Your task to perform on an android device: open app "Truecaller" (install if not already installed) Image 0: 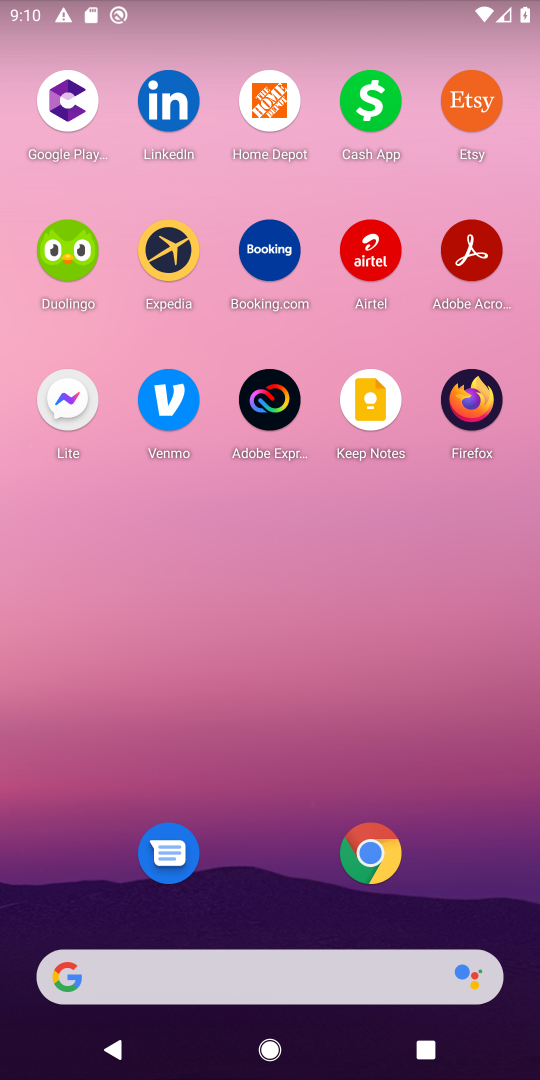
Step 0: drag from (272, 794) to (281, 257)
Your task to perform on an android device: open app "Truecaller" (install if not already installed) Image 1: 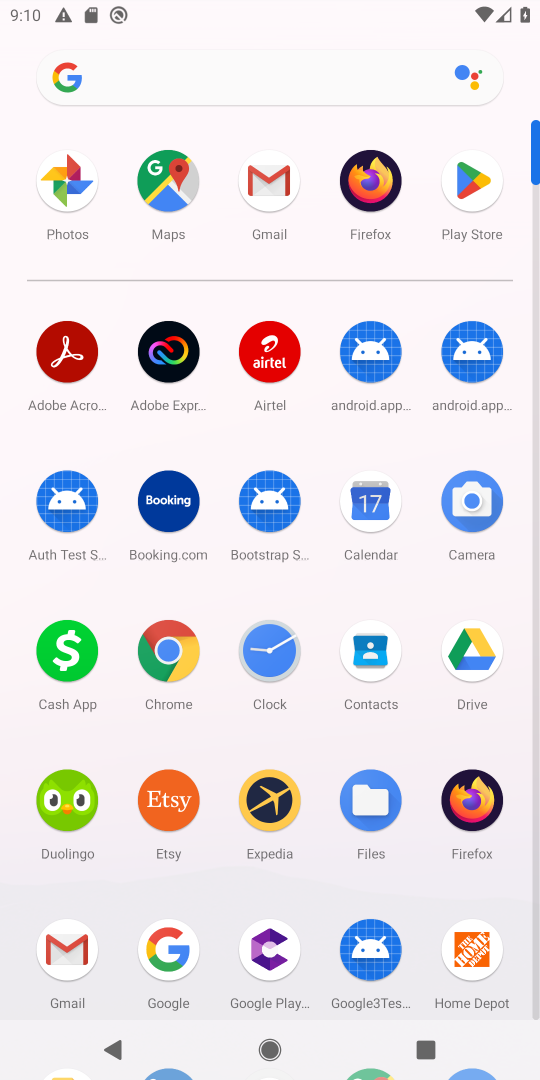
Step 1: click (447, 186)
Your task to perform on an android device: open app "Truecaller" (install if not already installed) Image 2: 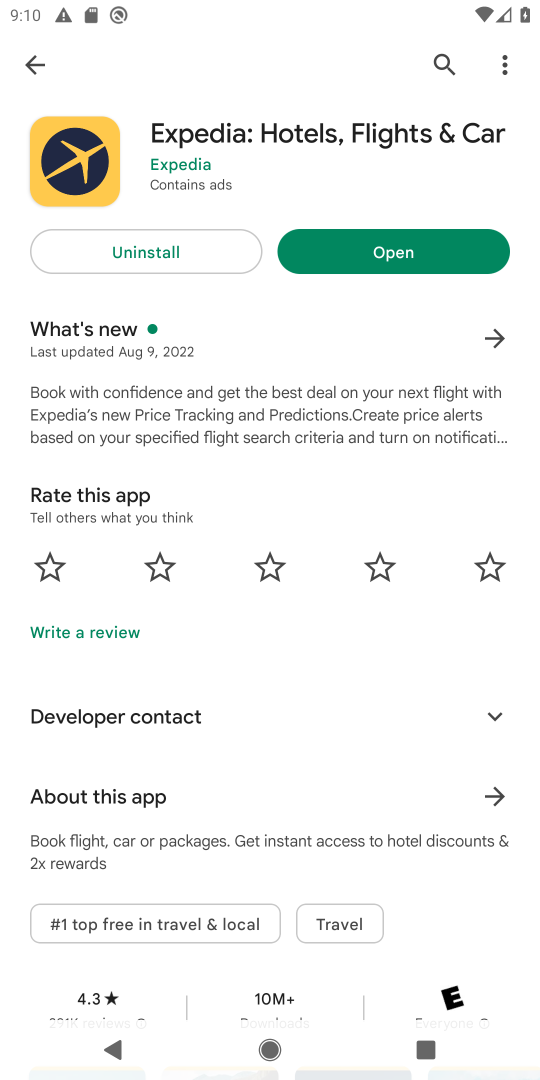
Step 2: click (451, 66)
Your task to perform on an android device: open app "Truecaller" (install if not already installed) Image 3: 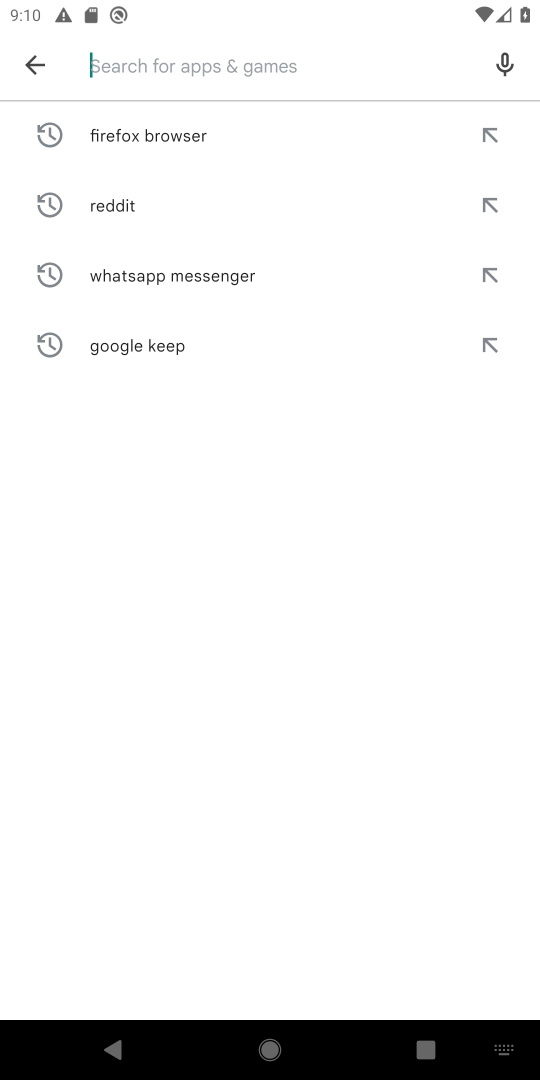
Step 3: type "Truecaller"
Your task to perform on an android device: open app "Truecaller" (install if not already installed) Image 4: 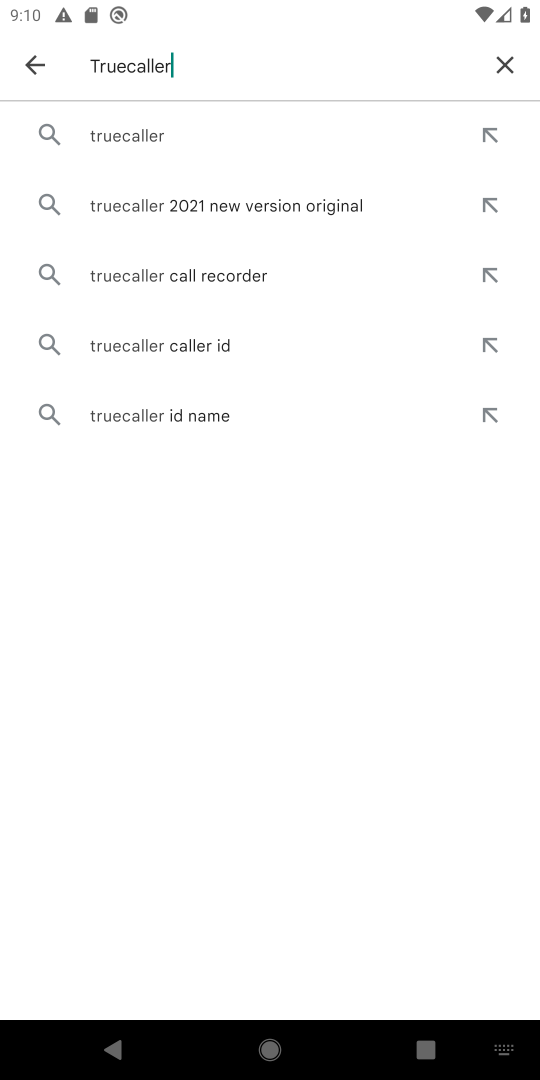
Step 4: click (208, 139)
Your task to perform on an android device: open app "Truecaller" (install if not already installed) Image 5: 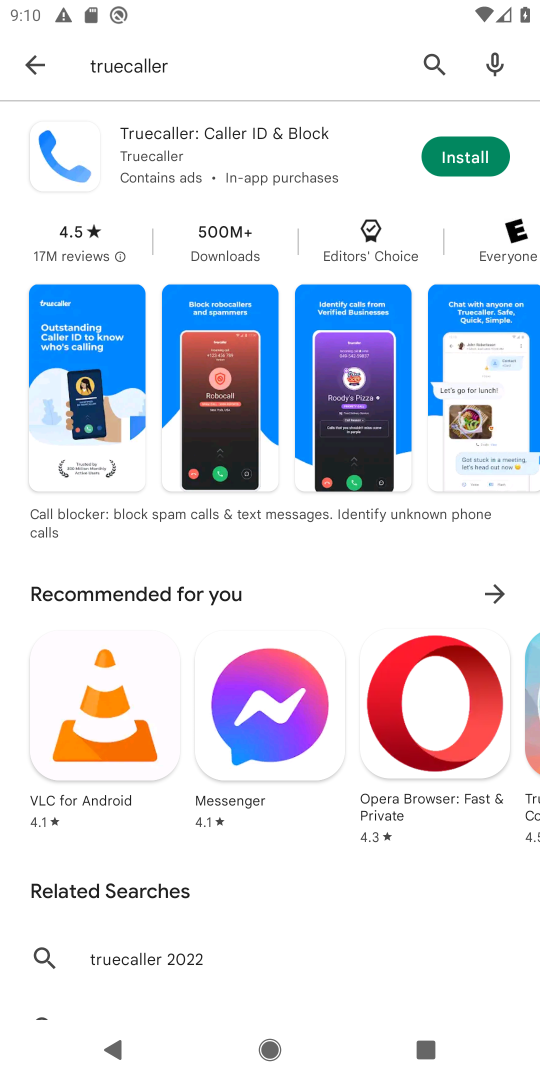
Step 5: click (475, 146)
Your task to perform on an android device: open app "Truecaller" (install if not already installed) Image 6: 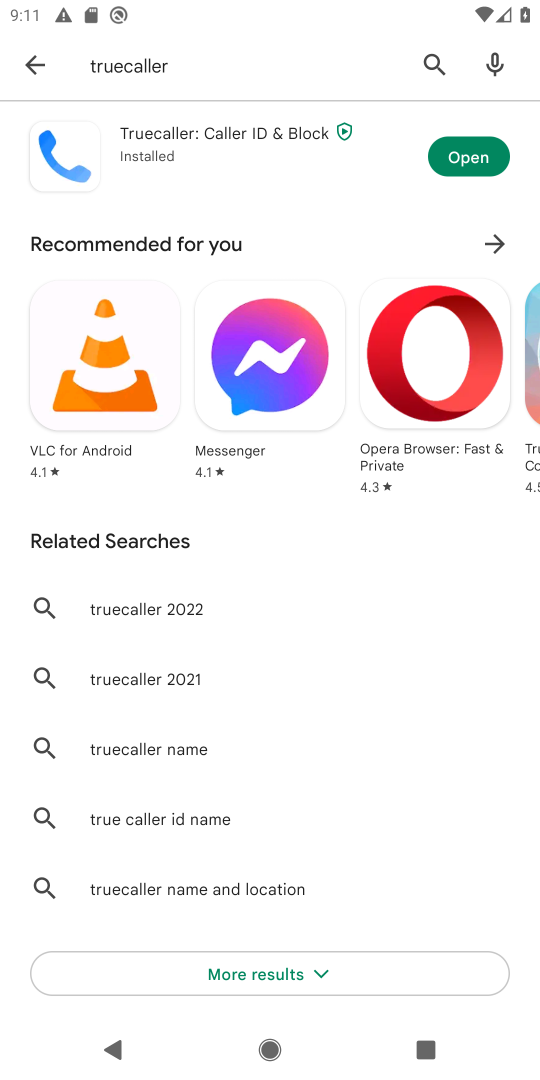
Step 6: click (467, 154)
Your task to perform on an android device: open app "Truecaller" (install if not already installed) Image 7: 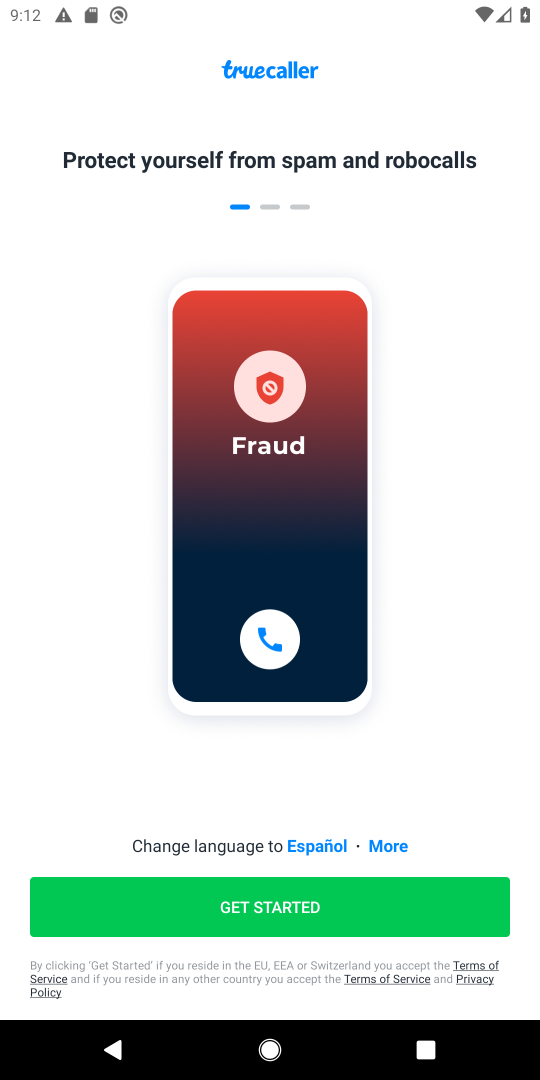
Step 7: task complete